Your task to perform on an android device: turn on data saver in the chrome app Image 0: 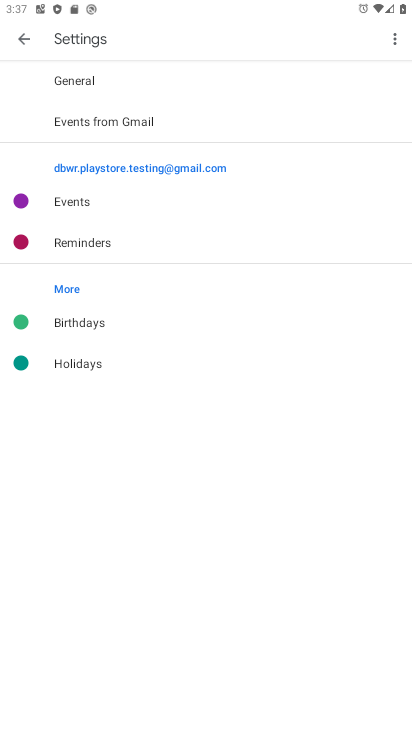
Step 0: press home button
Your task to perform on an android device: turn on data saver in the chrome app Image 1: 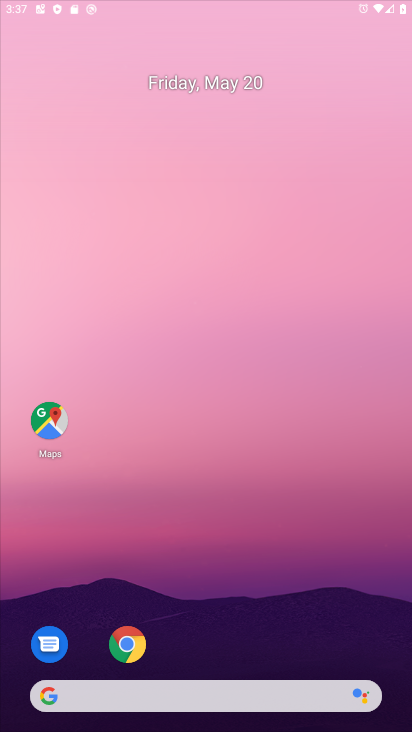
Step 1: press home button
Your task to perform on an android device: turn on data saver in the chrome app Image 2: 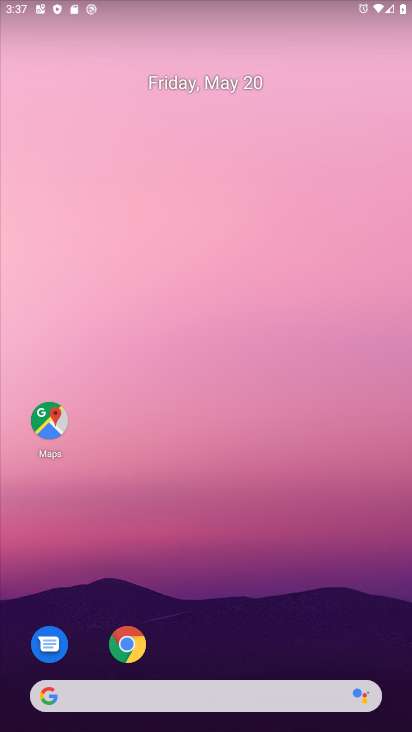
Step 2: click (116, 634)
Your task to perform on an android device: turn on data saver in the chrome app Image 3: 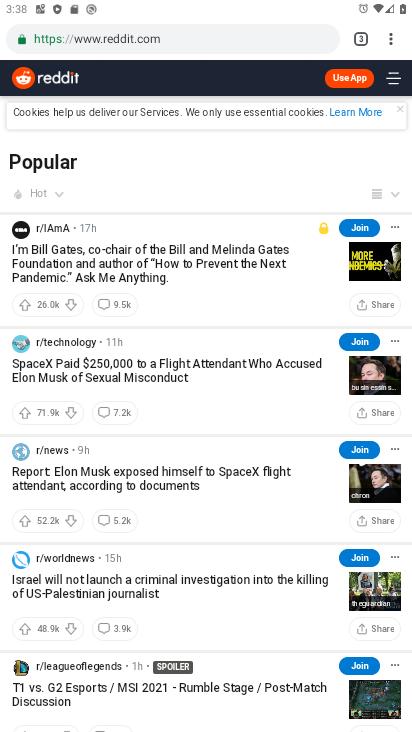
Step 3: click (402, 33)
Your task to perform on an android device: turn on data saver in the chrome app Image 4: 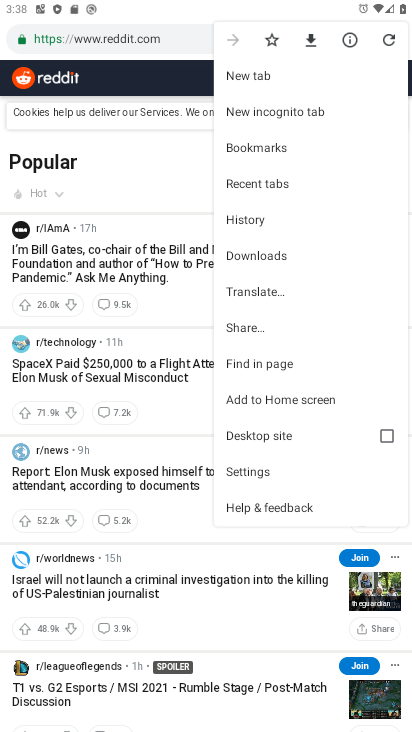
Step 4: click (268, 479)
Your task to perform on an android device: turn on data saver in the chrome app Image 5: 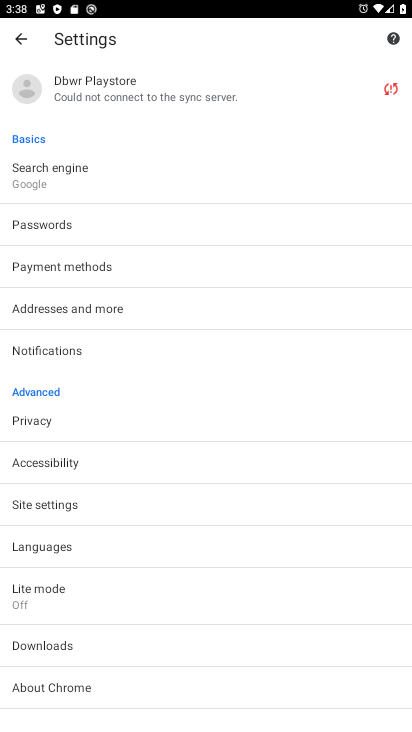
Step 5: click (143, 585)
Your task to perform on an android device: turn on data saver in the chrome app Image 6: 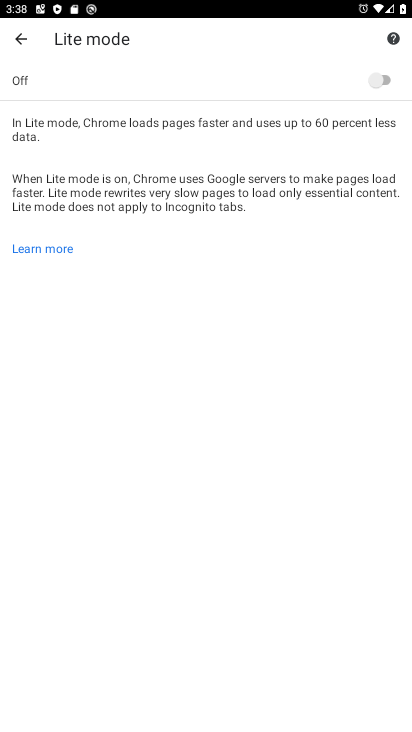
Step 6: click (380, 66)
Your task to perform on an android device: turn on data saver in the chrome app Image 7: 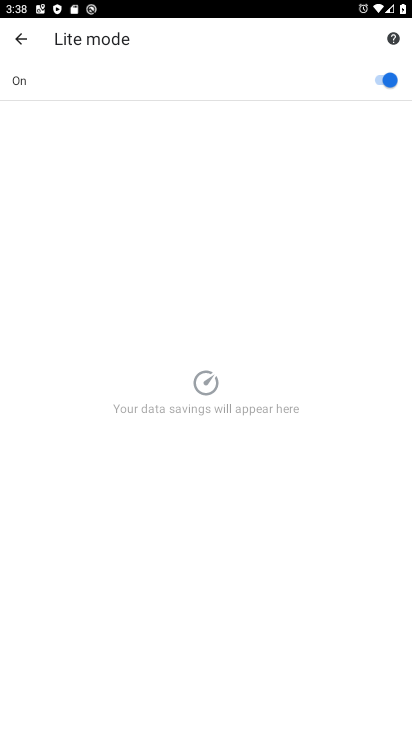
Step 7: task complete